Your task to perform on an android device: star an email in the gmail app Image 0: 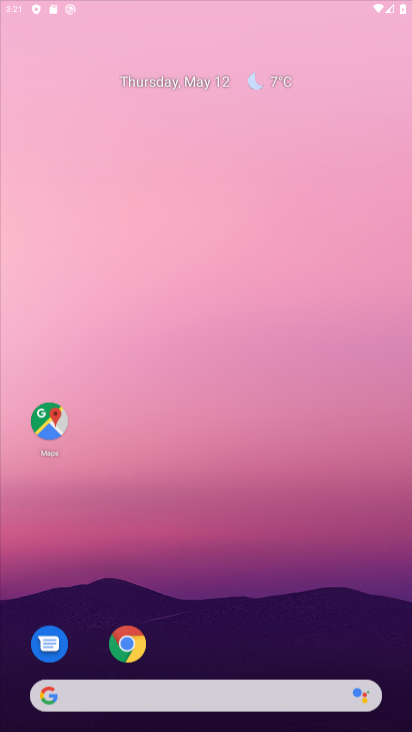
Step 0: click (128, 637)
Your task to perform on an android device: star an email in the gmail app Image 1: 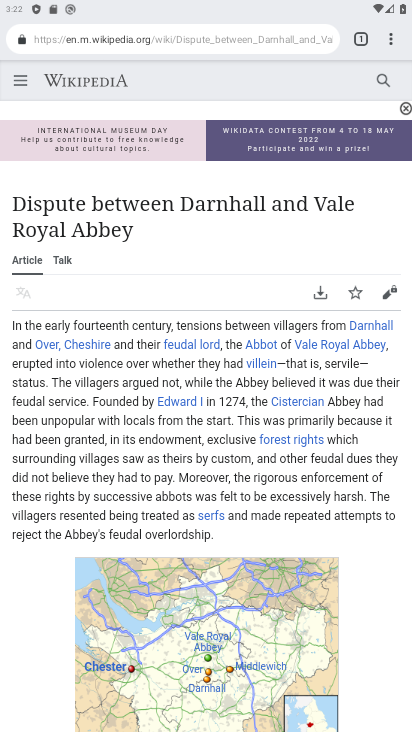
Step 1: click (388, 36)
Your task to perform on an android device: star an email in the gmail app Image 2: 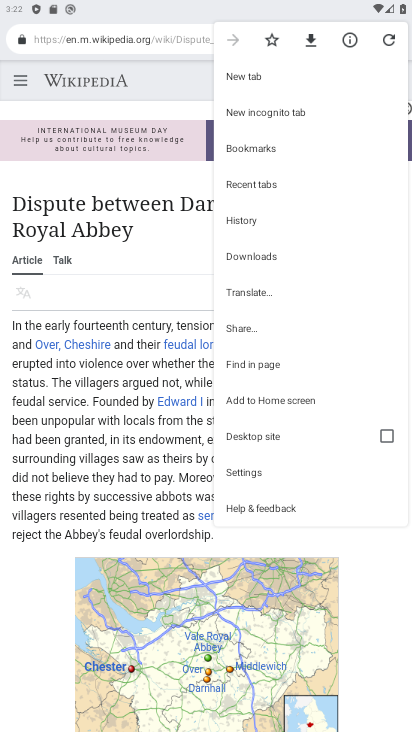
Step 2: press home button
Your task to perform on an android device: star an email in the gmail app Image 3: 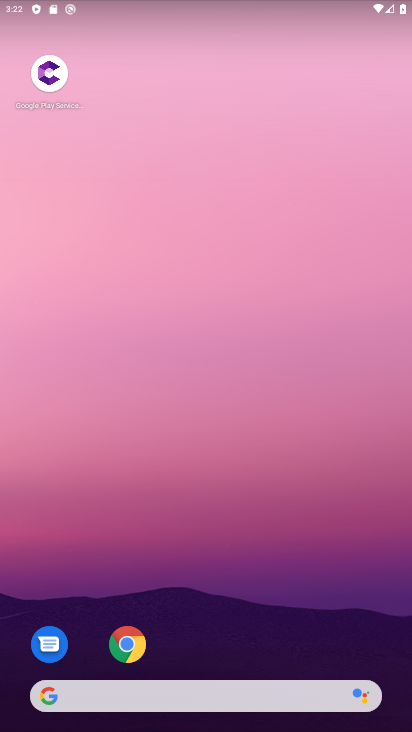
Step 3: press home button
Your task to perform on an android device: star an email in the gmail app Image 4: 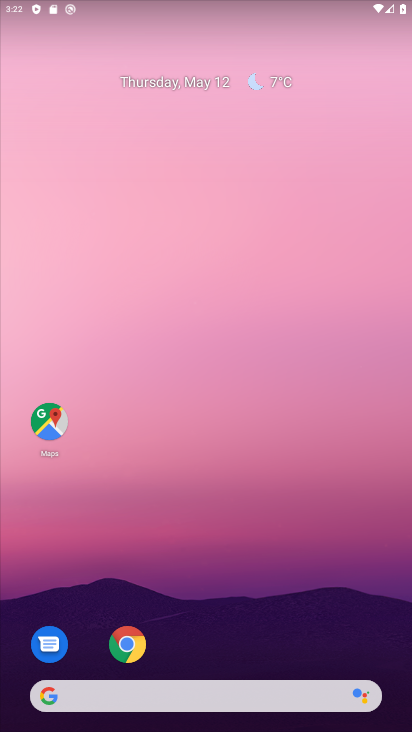
Step 4: drag from (217, 642) to (255, 138)
Your task to perform on an android device: star an email in the gmail app Image 5: 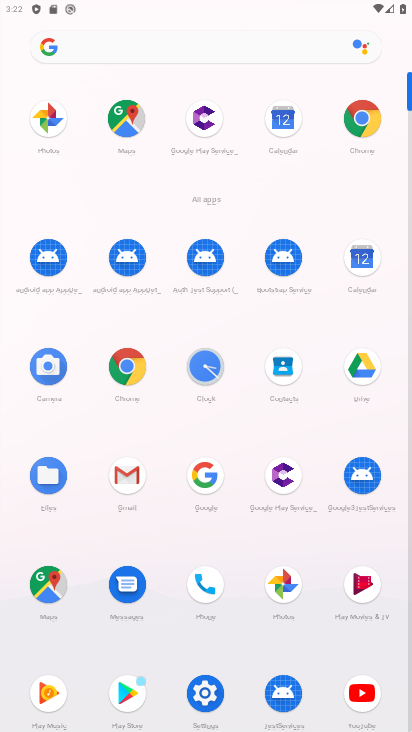
Step 5: click (127, 472)
Your task to perform on an android device: star an email in the gmail app Image 6: 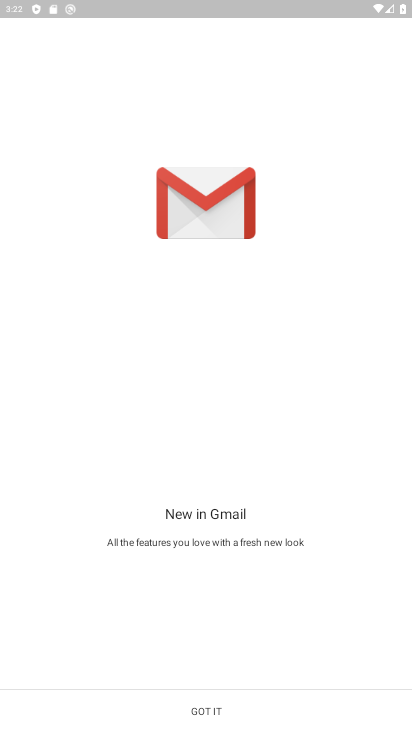
Step 6: click (198, 707)
Your task to perform on an android device: star an email in the gmail app Image 7: 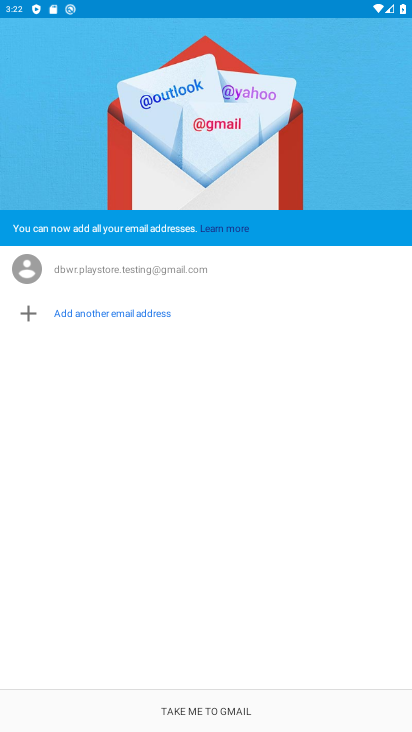
Step 7: click (209, 710)
Your task to perform on an android device: star an email in the gmail app Image 8: 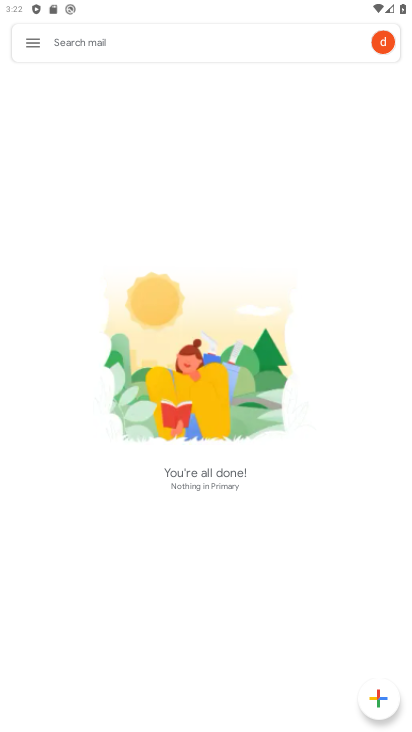
Step 8: task complete